Your task to perform on an android device: change timer sound Image 0: 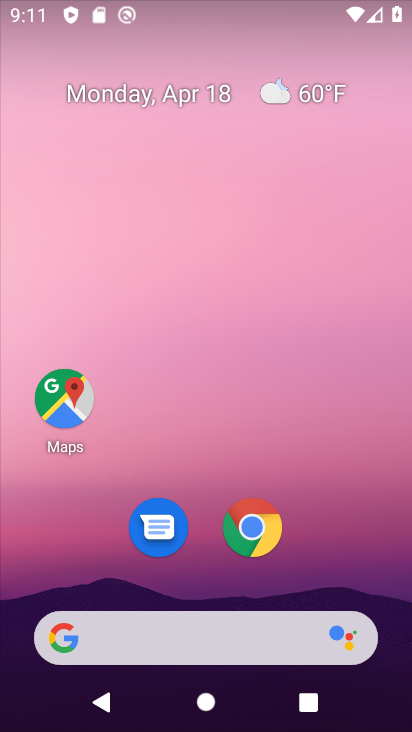
Step 0: drag from (373, 22) to (407, 263)
Your task to perform on an android device: change timer sound Image 1: 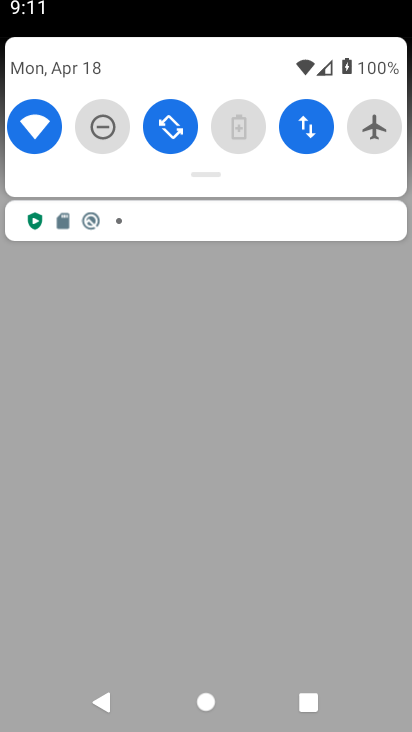
Step 1: press back button
Your task to perform on an android device: change timer sound Image 2: 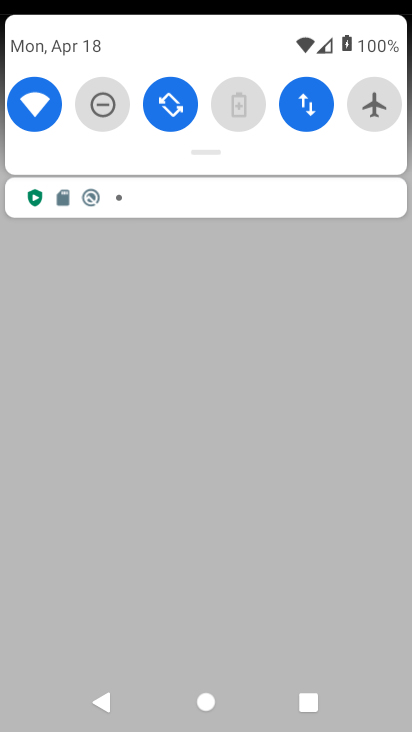
Step 2: click (407, 263)
Your task to perform on an android device: change timer sound Image 3: 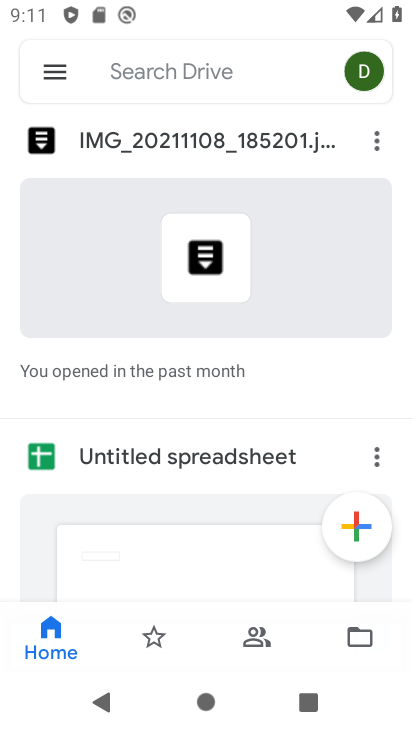
Step 3: press back button
Your task to perform on an android device: change timer sound Image 4: 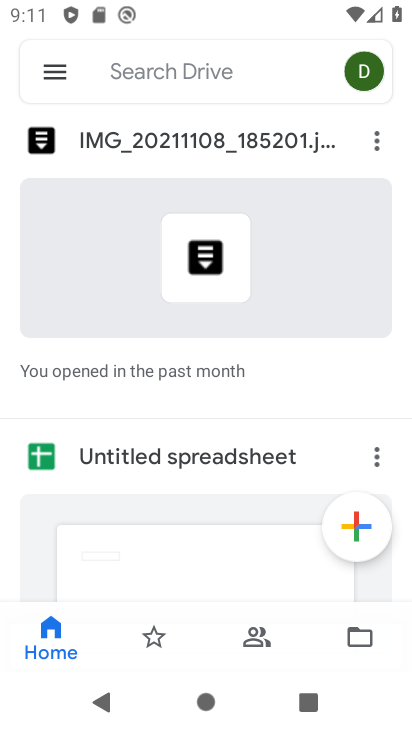
Step 4: drag from (407, 263) to (379, 464)
Your task to perform on an android device: change timer sound Image 5: 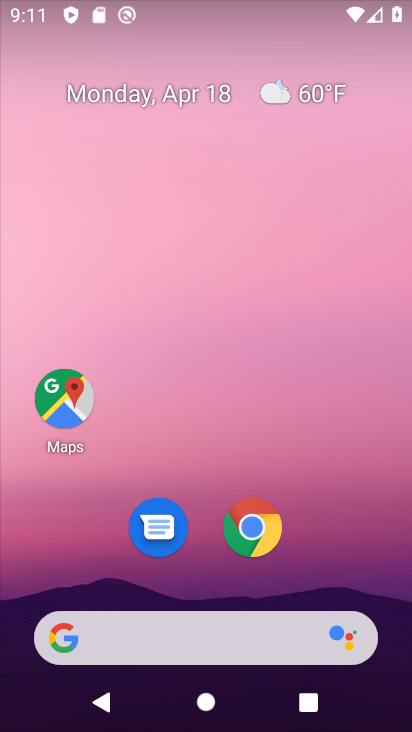
Step 5: drag from (148, 593) to (298, 47)
Your task to perform on an android device: change timer sound Image 6: 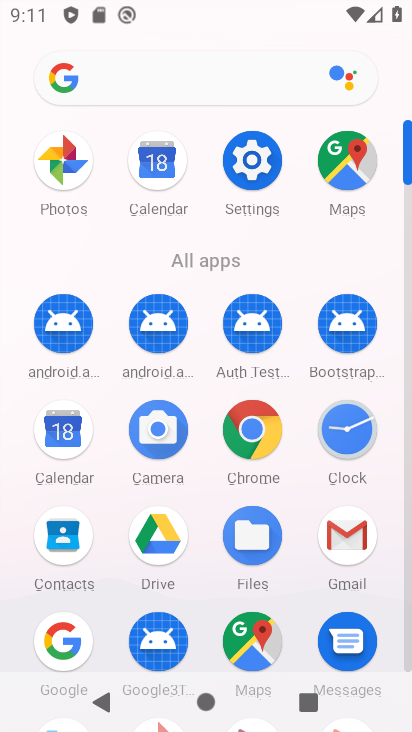
Step 6: click (351, 420)
Your task to perform on an android device: change timer sound Image 7: 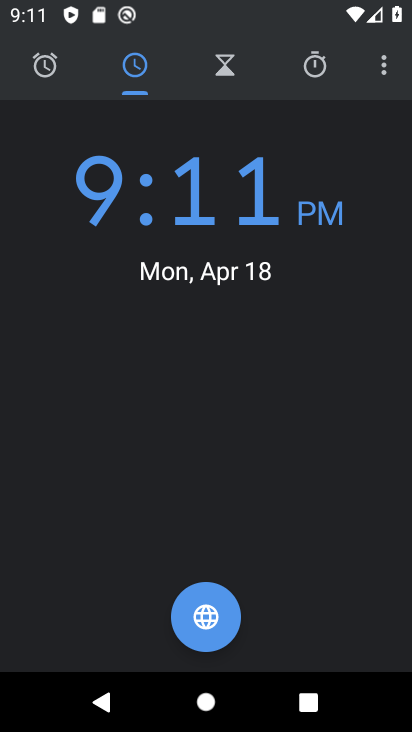
Step 7: click (382, 66)
Your task to perform on an android device: change timer sound Image 8: 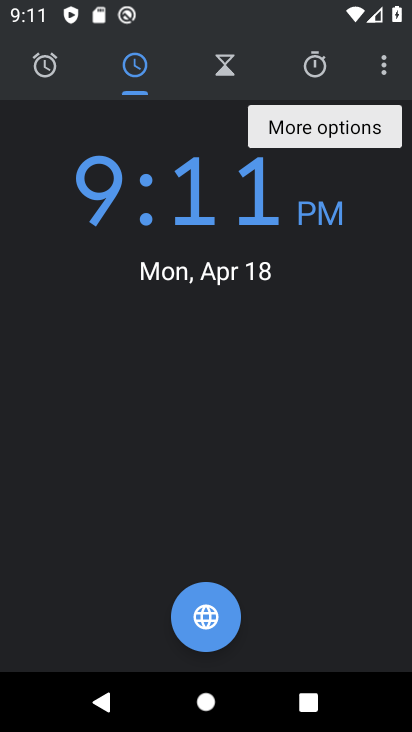
Step 8: click (354, 145)
Your task to perform on an android device: change timer sound Image 9: 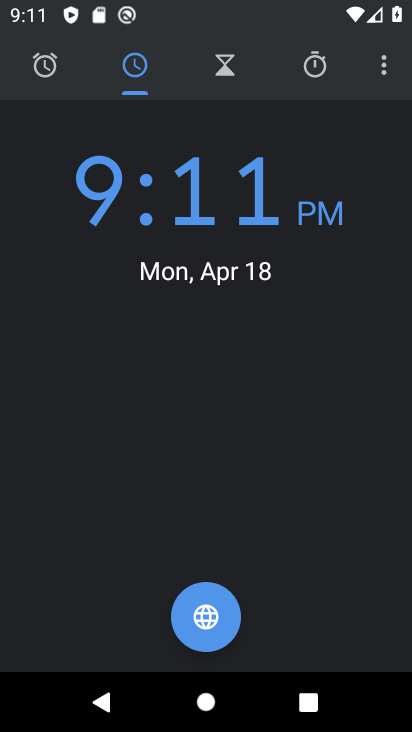
Step 9: click (384, 65)
Your task to perform on an android device: change timer sound Image 10: 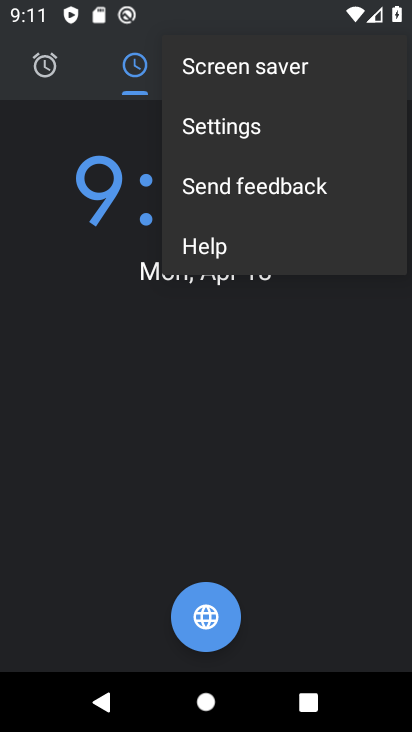
Step 10: click (321, 124)
Your task to perform on an android device: change timer sound Image 11: 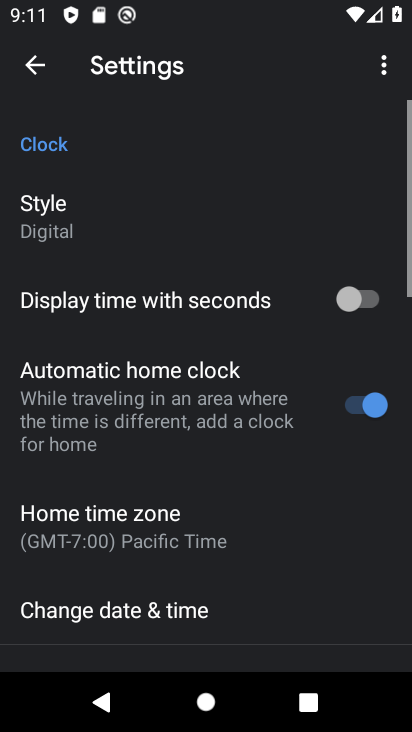
Step 11: drag from (214, 519) to (373, 97)
Your task to perform on an android device: change timer sound Image 12: 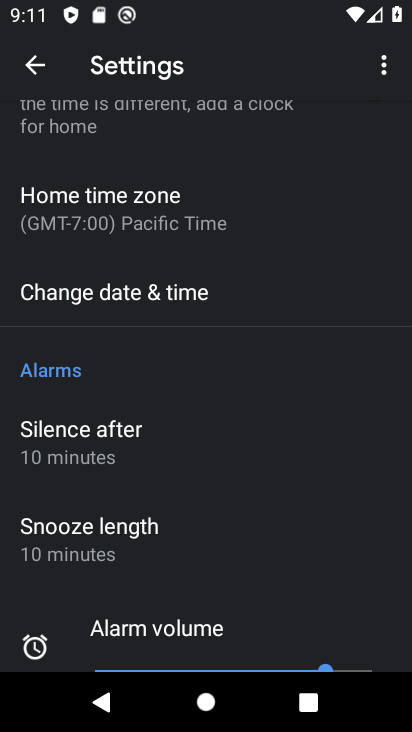
Step 12: drag from (183, 541) to (350, 165)
Your task to perform on an android device: change timer sound Image 13: 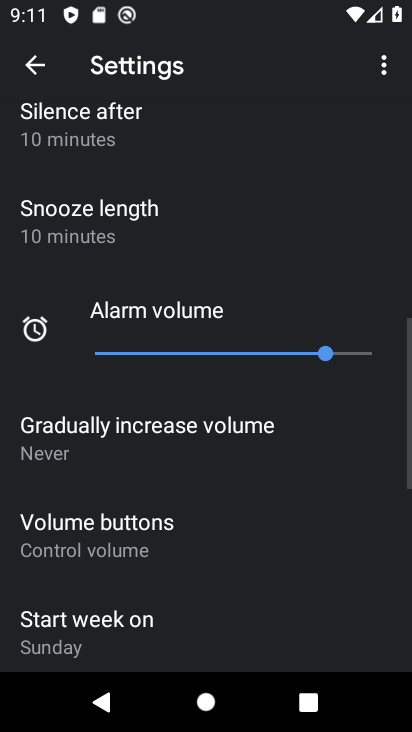
Step 13: drag from (191, 546) to (342, 176)
Your task to perform on an android device: change timer sound Image 14: 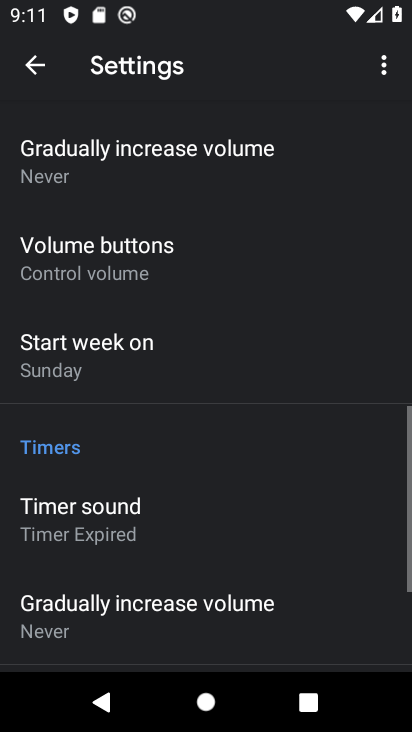
Step 14: drag from (198, 564) to (230, 447)
Your task to perform on an android device: change timer sound Image 15: 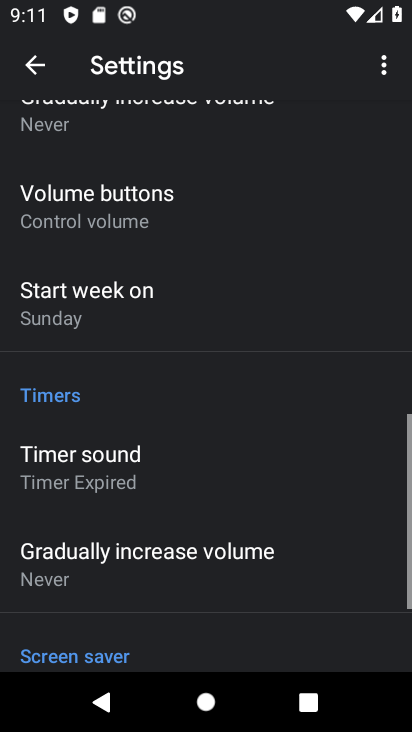
Step 15: click (203, 473)
Your task to perform on an android device: change timer sound Image 16: 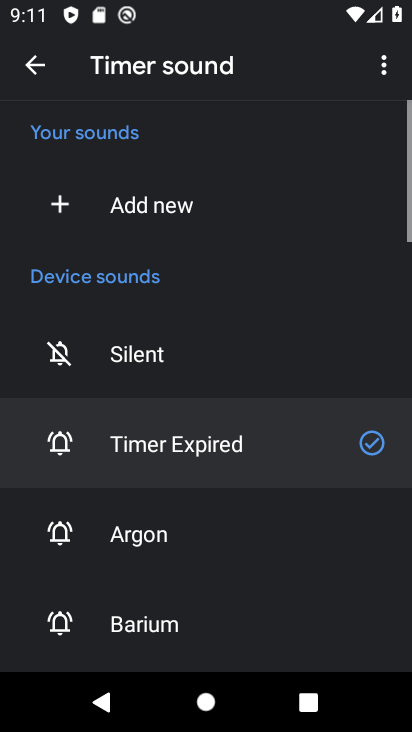
Step 16: drag from (176, 587) to (334, 242)
Your task to perform on an android device: change timer sound Image 17: 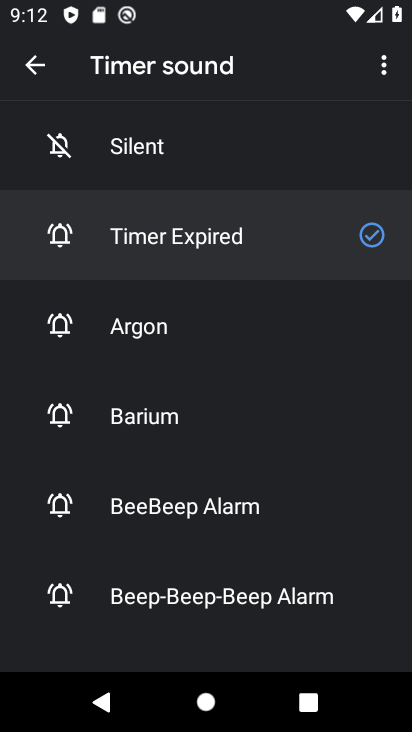
Step 17: click (243, 509)
Your task to perform on an android device: change timer sound Image 18: 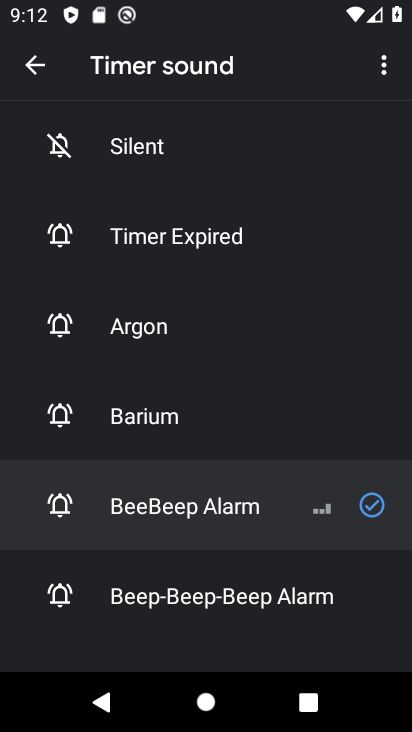
Step 18: task complete